Your task to perform on an android device: open chrome privacy settings Image 0: 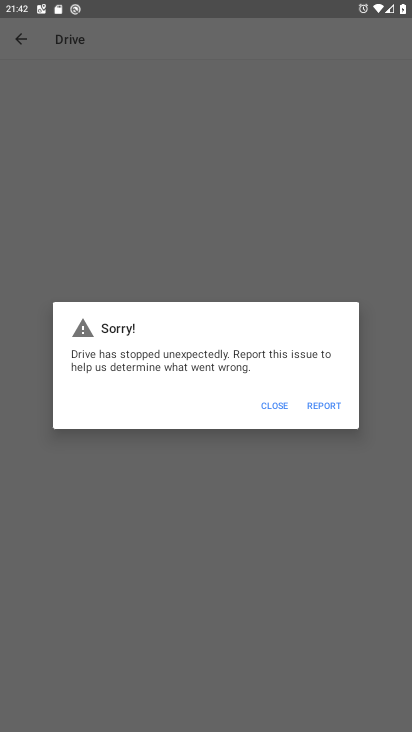
Step 0: press home button
Your task to perform on an android device: open chrome privacy settings Image 1: 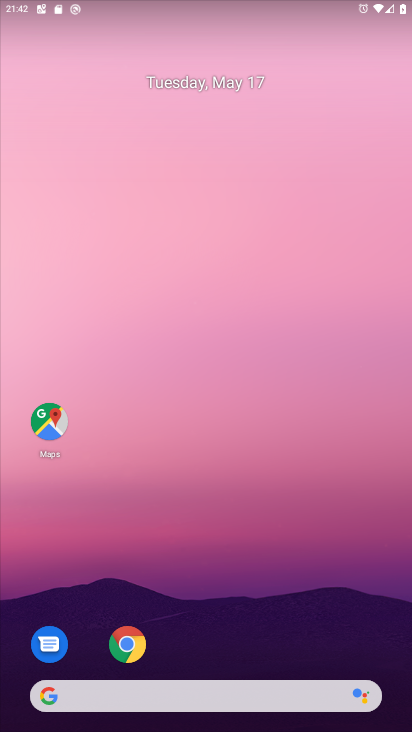
Step 1: drag from (224, 661) to (267, 59)
Your task to perform on an android device: open chrome privacy settings Image 2: 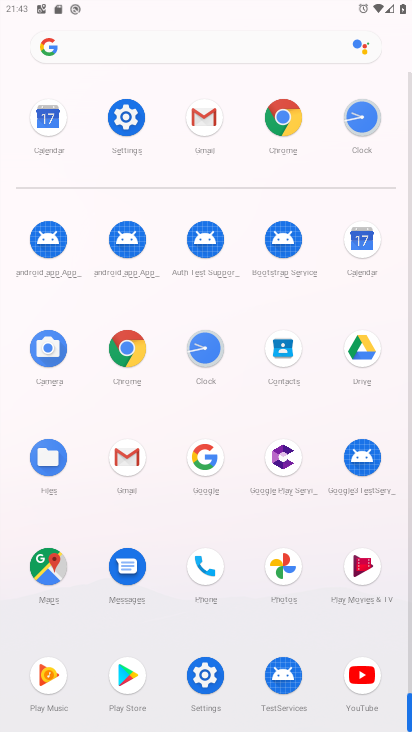
Step 2: click (128, 341)
Your task to perform on an android device: open chrome privacy settings Image 3: 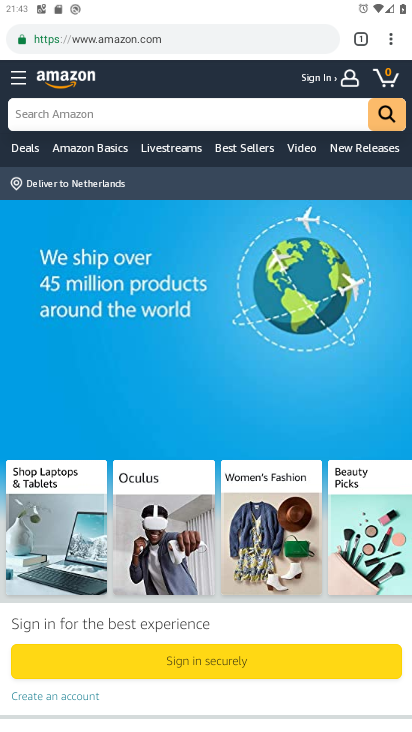
Step 3: click (386, 37)
Your task to perform on an android device: open chrome privacy settings Image 4: 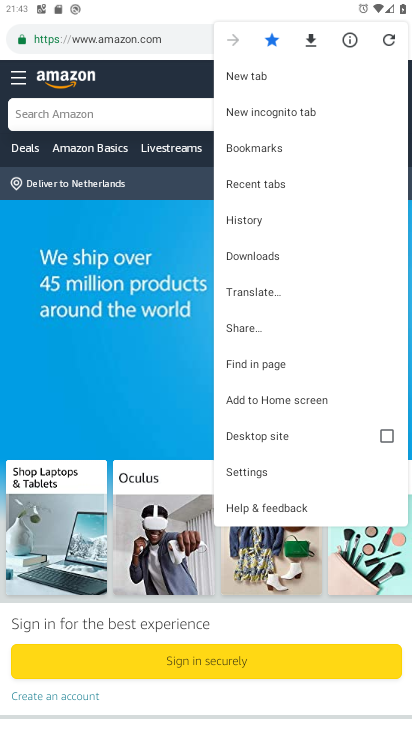
Step 4: click (273, 464)
Your task to perform on an android device: open chrome privacy settings Image 5: 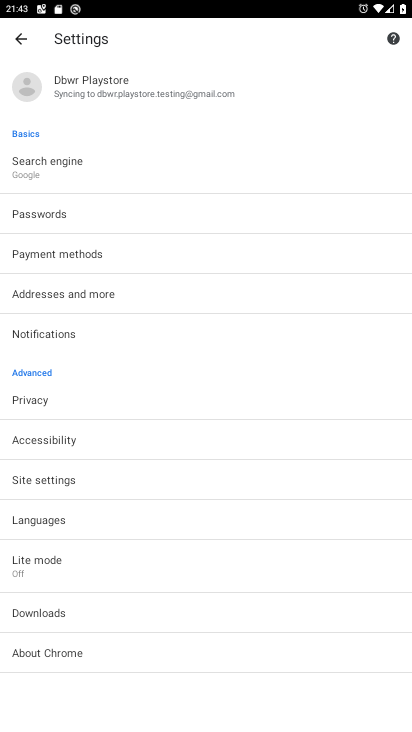
Step 5: click (88, 404)
Your task to perform on an android device: open chrome privacy settings Image 6: 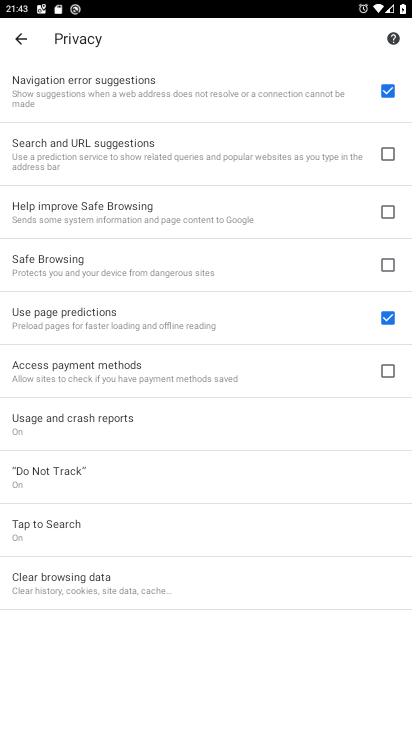
Step 6: task complete